Your task to perform on an android device: delete a single message in the gmail app Image 0: 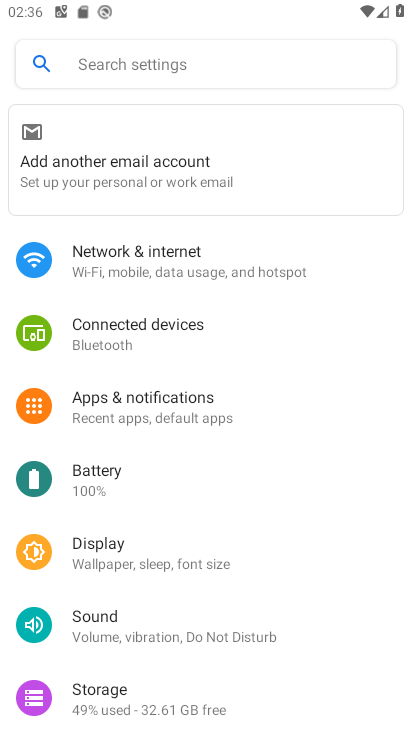
Step 0: press back button
Your task to perform on an android device: delete a single message in the gmail app Image 1: 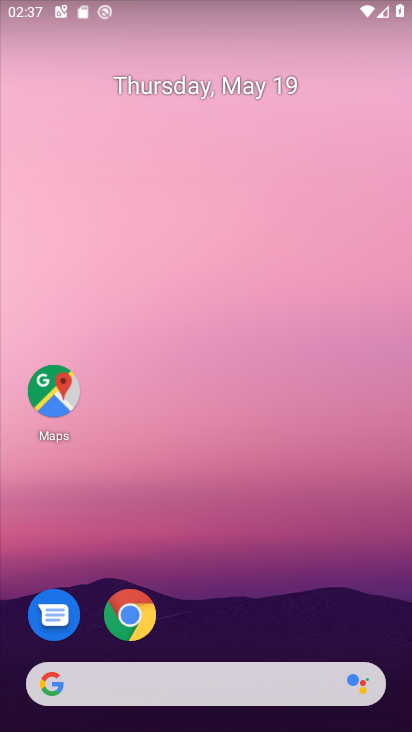
Step 1: drag from (260, 607) to (217, 19)
Your task to perform on an android device: delete a single message in the gmail app Image 2: 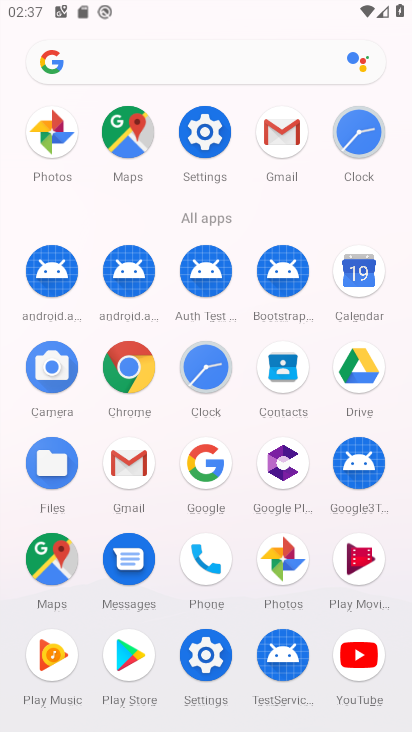
Step 2: click (127, 457)
Your task to perform on an android device: delete a single message in the gmail app Image 3: 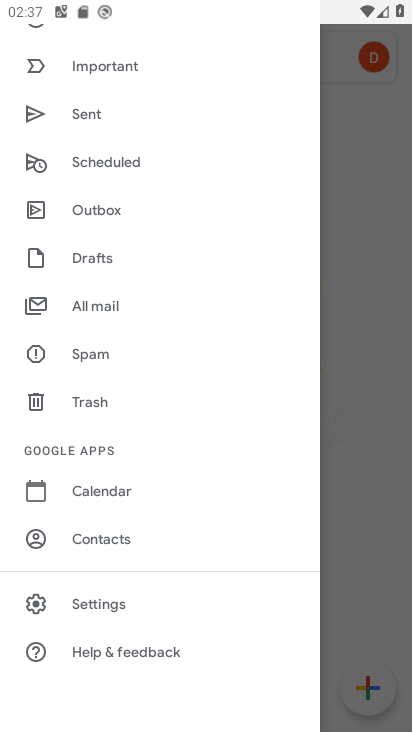
Step 3: drag from (184, 486) to (161, 116)
Your task to perform on an android device: delete a single message in the gmail app Image 4: 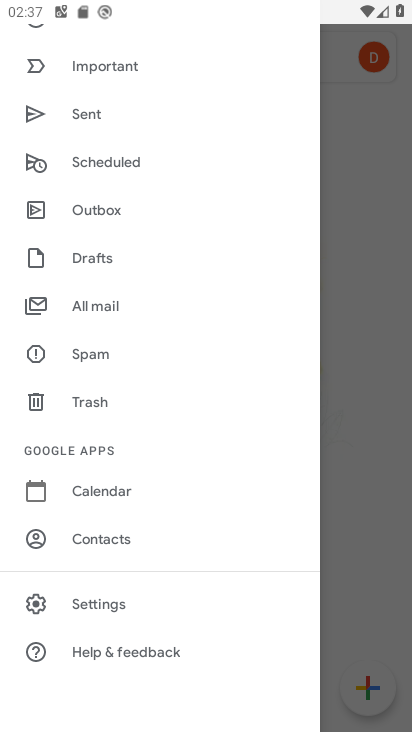
Step 4: drag from (178, 319) to (163, 568)
Your task to perform on an android device: delete a single message in the gmail app Image 5: 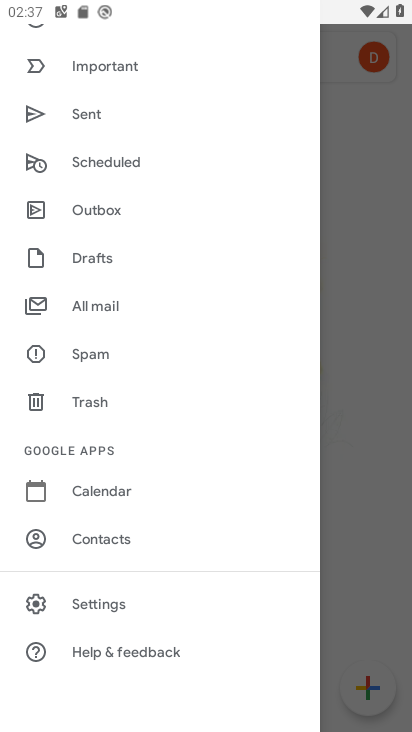
Step 5: drag from (178, 120) to (156, 501)
Your task to perform on an android device: delete a single message in the gmail app Image 6: 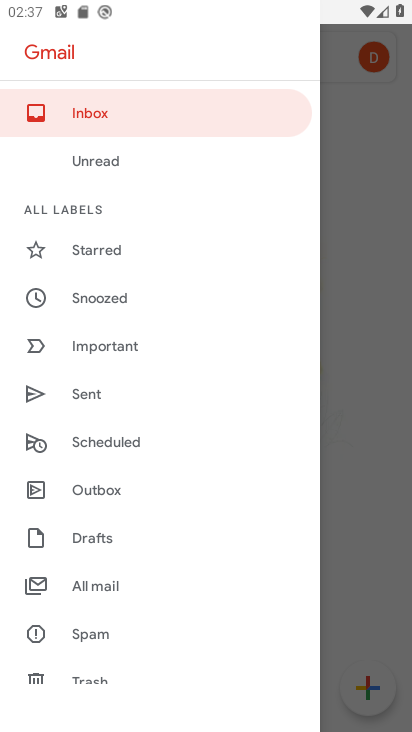
Step 6: click (103, 584)
Your task to perform on an android device: delete a single message in the gmail app Image 7: 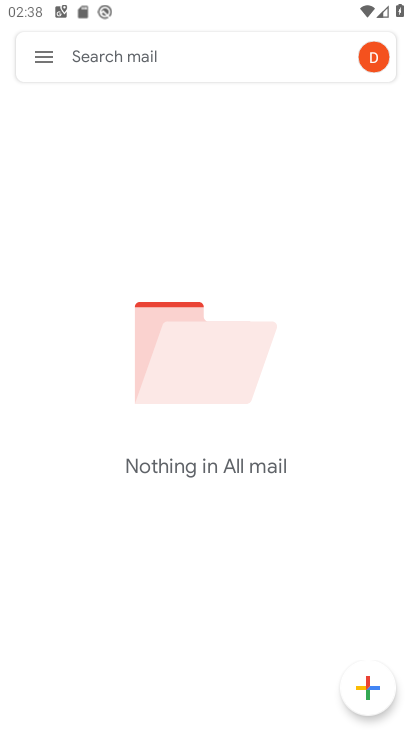
Step 7: click (44, 57)
Your task to perform on an android device: delete a single message in the gmail app Image 8: 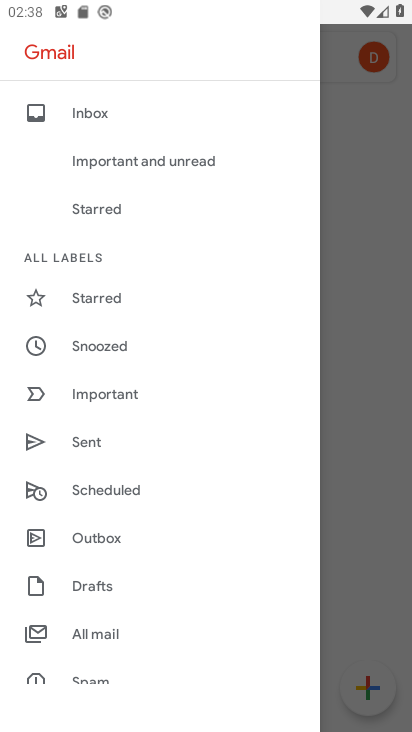
Step 8: click (113, 629)
Your task to perform on an android device: delete a single message in the gmail app Image 9: 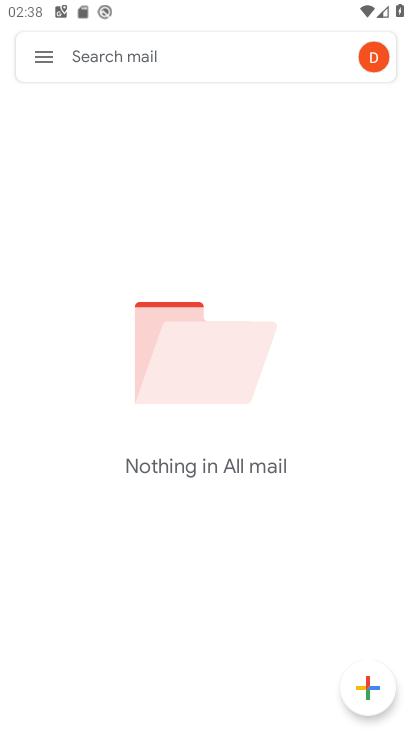
Step 9: task complete